Your task to perform on an android device: turn on airplane mode Image 0: 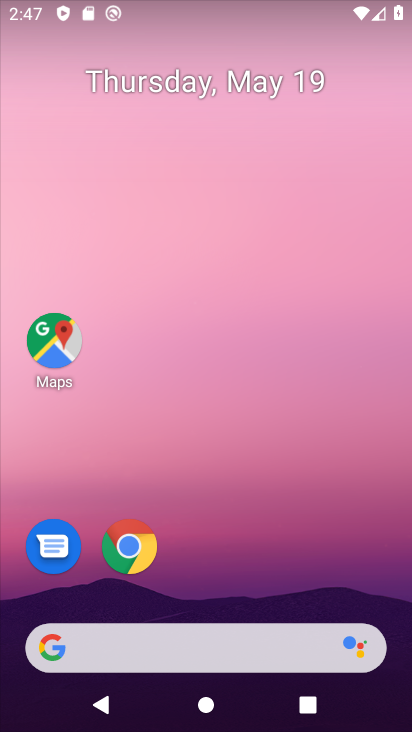
Step 0: drag from (204, 580) to (235, 0)
Your task to perform on an android device: turn on airplane mode Image 1: 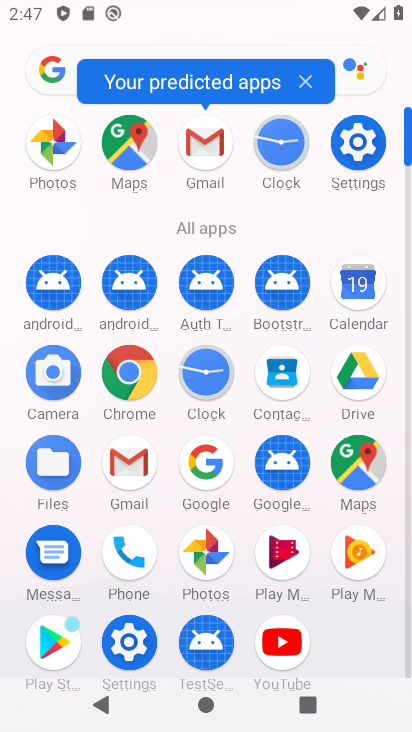
Step 1: click (374, 155)
Your task to perform on an android device: turn on airplane mode Image 2: 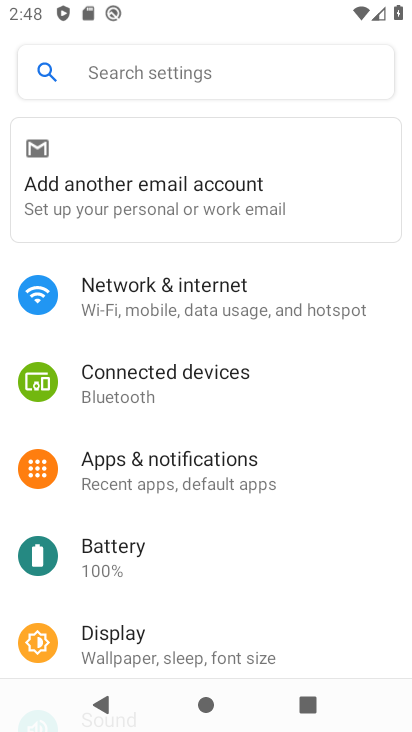
Step 2: click (175, 321)
Your task to perform on an android device: turn on airplane mode Image 3: 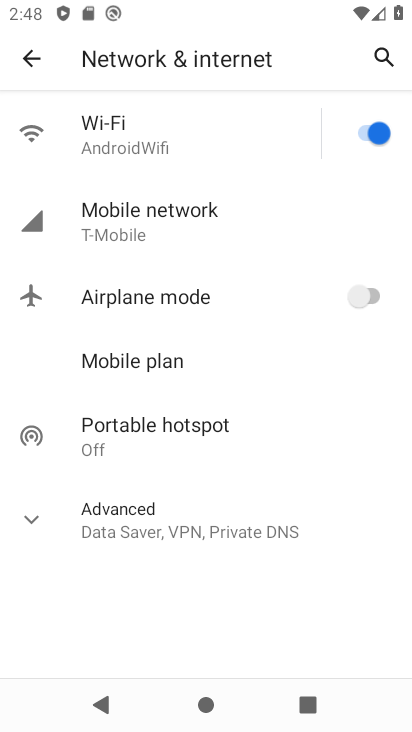
Step 3: click (315, 291)
Your task to perform on an android device: turn on airplane mode Image 4: 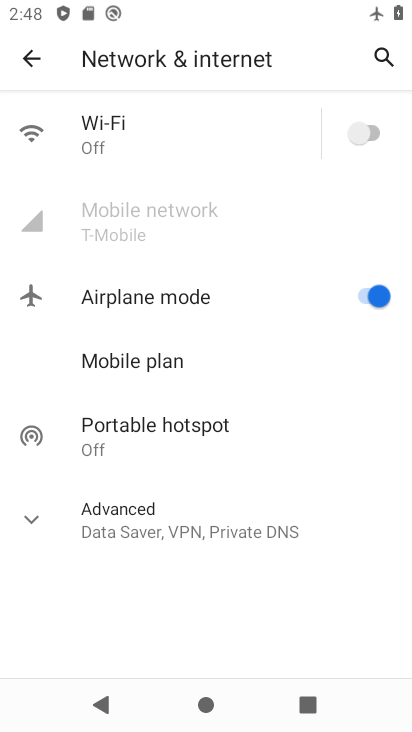
Step 4: task complete